Your task to perform on an android device: change alarm snooze length Image 0: 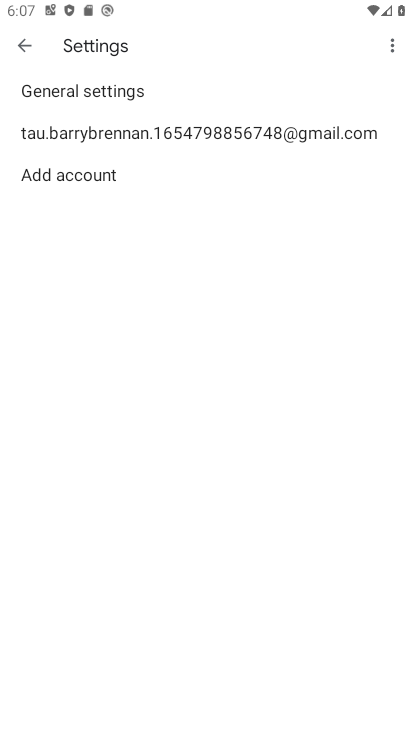
Step 0: press home button
Your task to perform on an android device: change alarm snooze length Image 1: 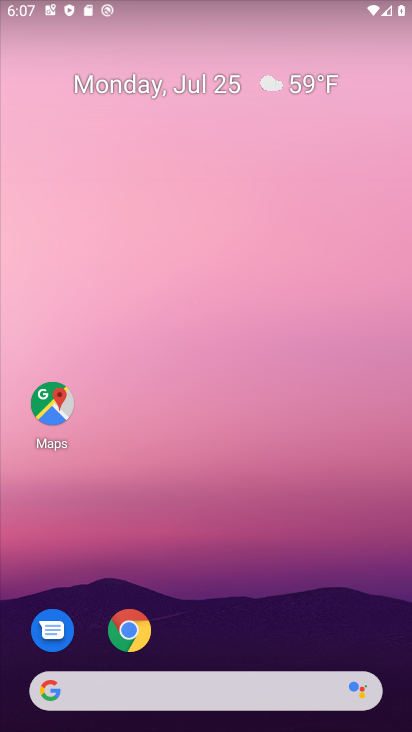
Step 1: drag from (193, 498) to (228, 6)
Your task to perform on an android device: change alarm snooze length Image 2: 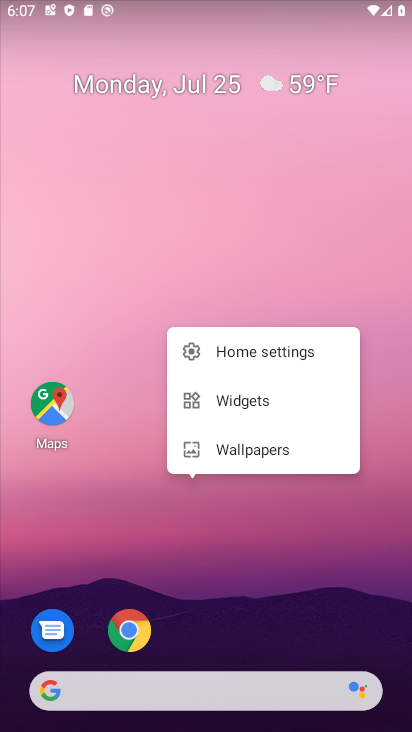
Step 2: click (233, 636)
Your task to perform on an android device: change alarm snooze length Image 3: 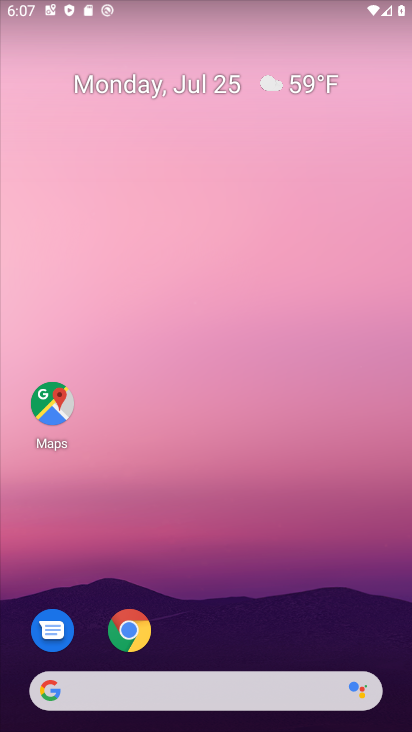
Step 3: drag from (222, 583) to (247, 32)
Your task to perform on an android device: change alarm snooze length Image 4: 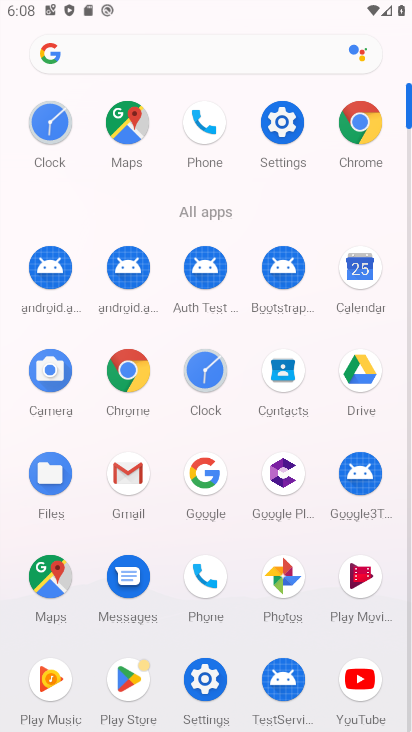
Step 4: click (45, 133)
Your task to perform on an android device: change alarm snooze length Image 5: 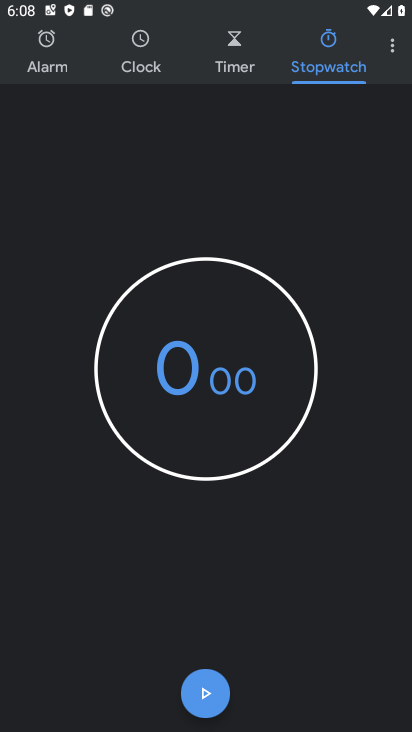
Step 5: click (394, 49)
Your task to perform on an android device: change alarm snooze length Image 6: 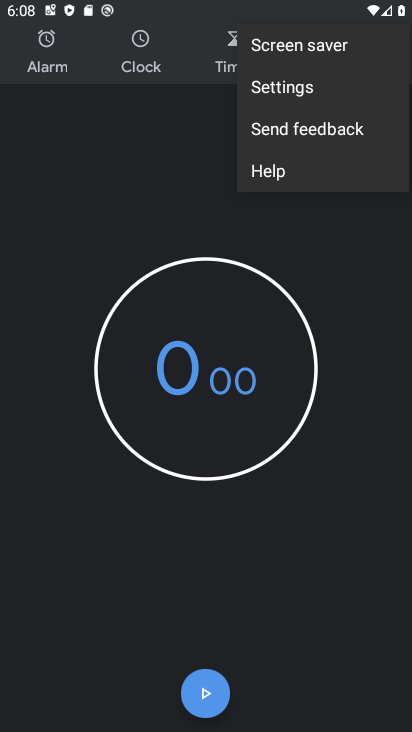
Step 6: click (312, 83)
Your task to perform on an android device: change alarm snooze length Image 7: 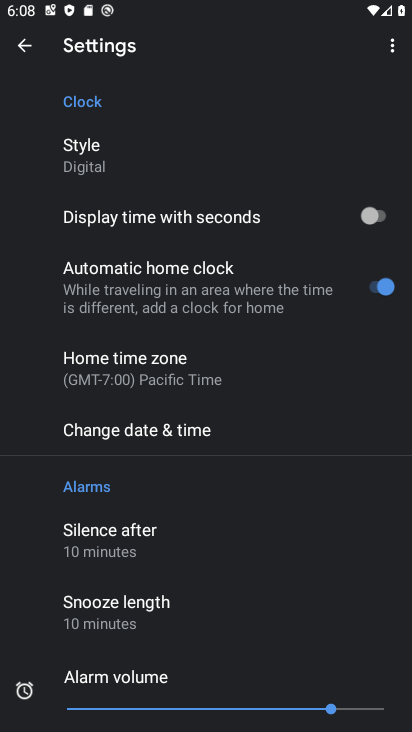
Step 7: click (132, 619)
Your task to perform on an android device: change alarm snooze length Image 8: 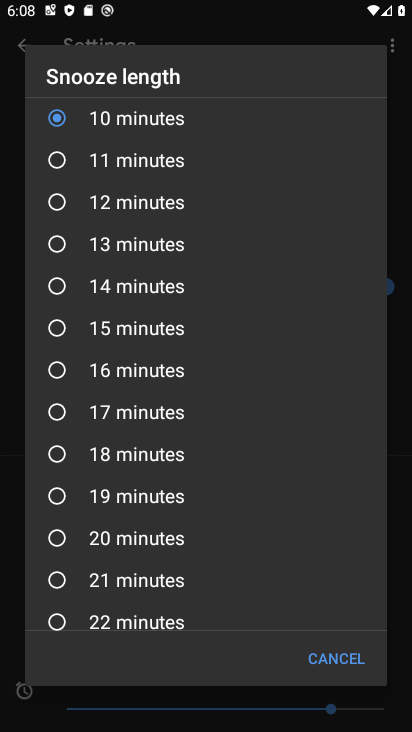
Step 8: click (62, 587)
Your task to perform on an android device: change alarm snooze length Image 9: 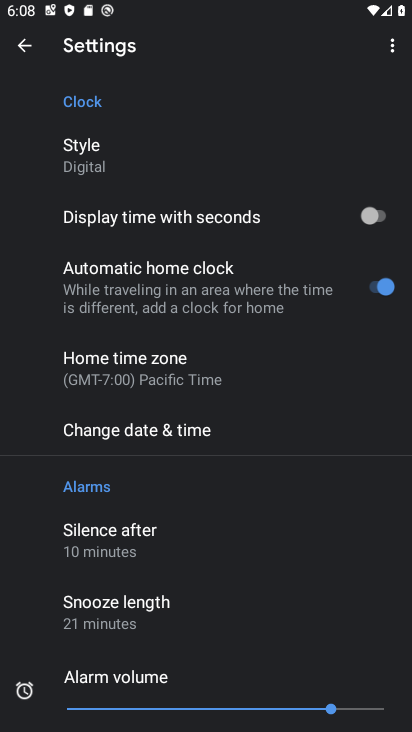
Step 9: task complete